Your task to perform on an android device: toggle notification dots Image 0: 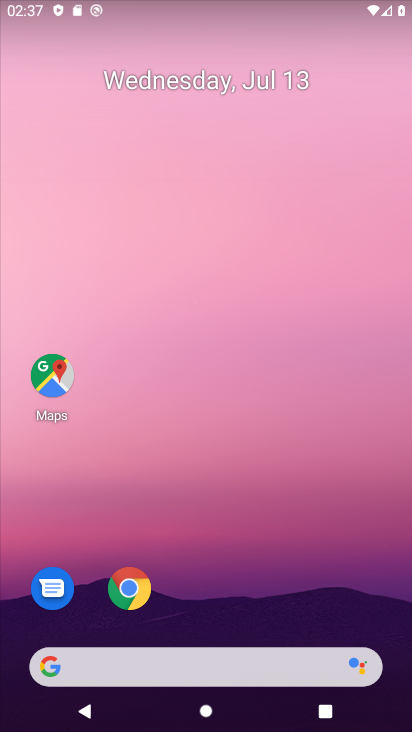
Step 0: click (288, 91)
Your task to perform on an android device: toggle notification dots Image 1: 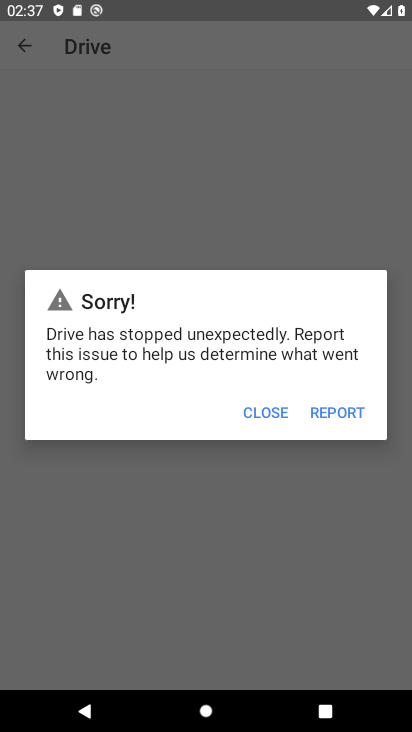
Step 1: press home button
Your task to perform on an android device: toggle notification dots Image 2: 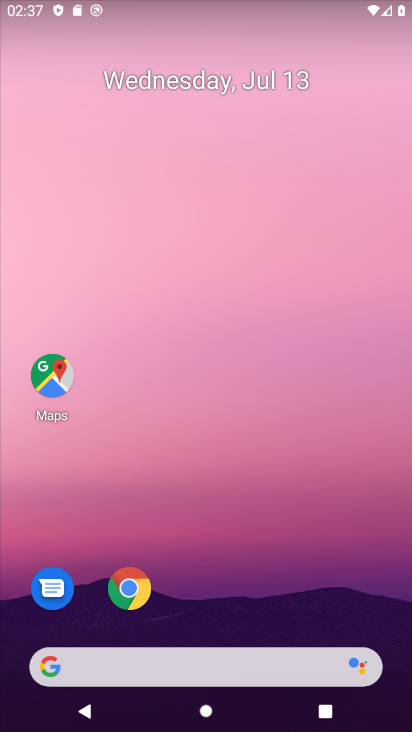
Step 2: drag from (280, 591) to (360, 52)
Your task to perform on an android device: toggle notification dots Image 3: 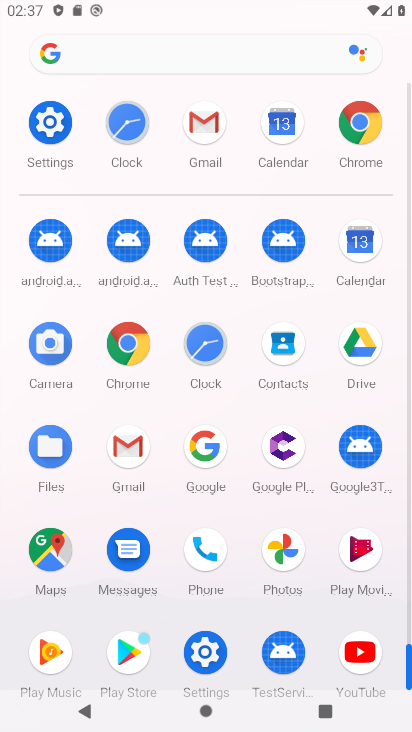
Step 3: click (35, 122)
Your task to perform on an android device: toggle notification dots Image 4: 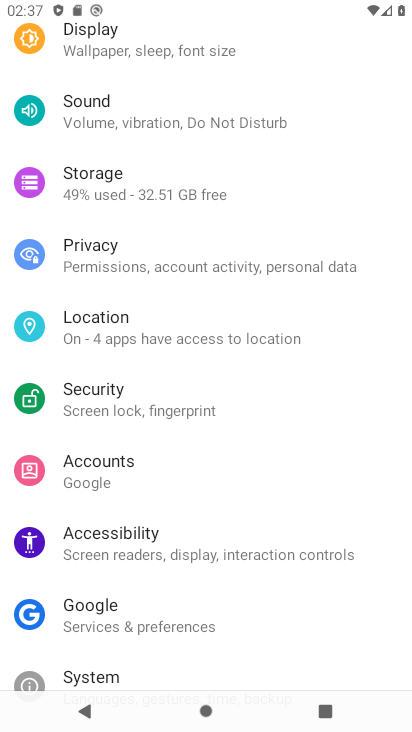
Step 4: drag from (84, 127) to (162, 501)
Your task to perform on an android device: toggle notification dots Image 5: 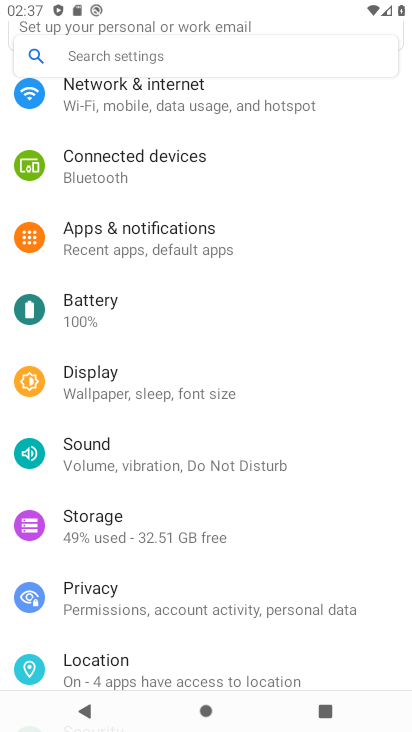
Step 5: click (151, 236)
Your task to perform on an android device: toggle notification dots Image 6: 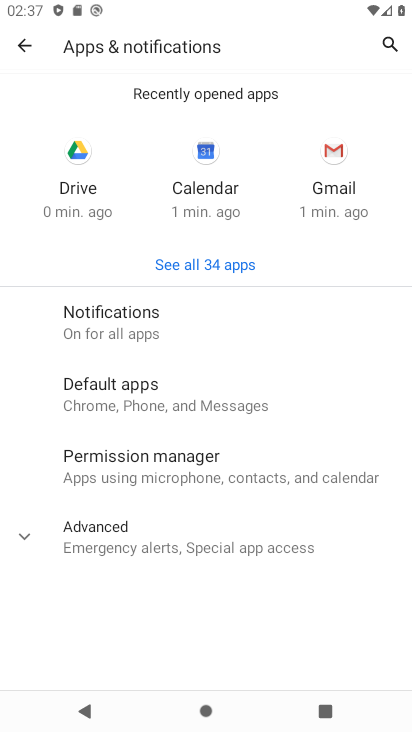
Step 6: click (126, 319)
Your task to perform on an android device: toggle notification dots Image 7: 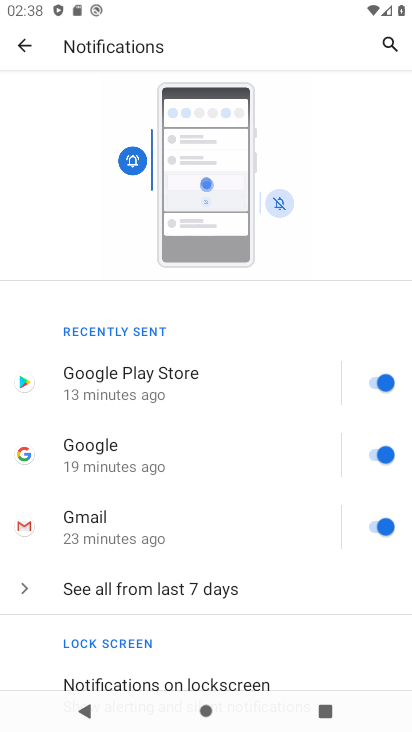
Step 7: drag from (199, 602) to (204, 182)
Your task to perform on an android device: toggle notification dots Image 8: 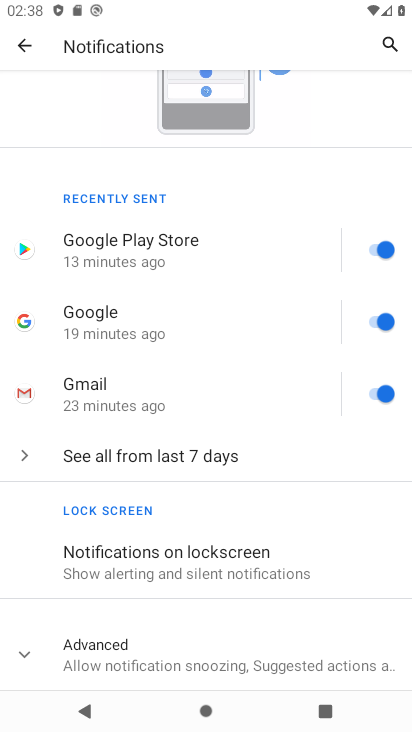
Step 8: click (187, 654)
Your task to perform on an android device: toggle notification dots Image 9: 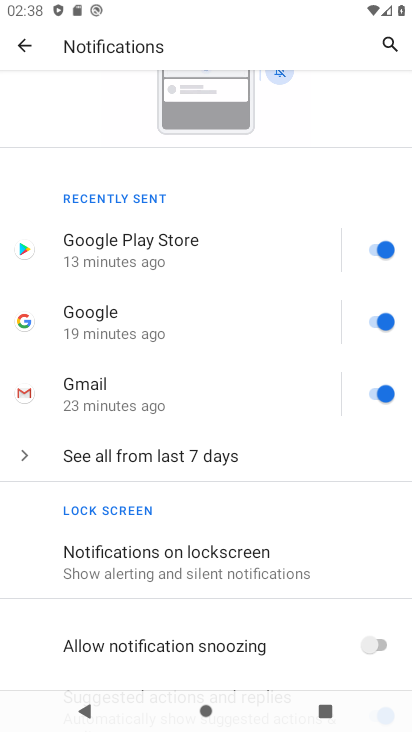
Step 9: drag from (191, 609) to (94, 197)
Your task to perform on an android device: toggle notification dots Image 10: 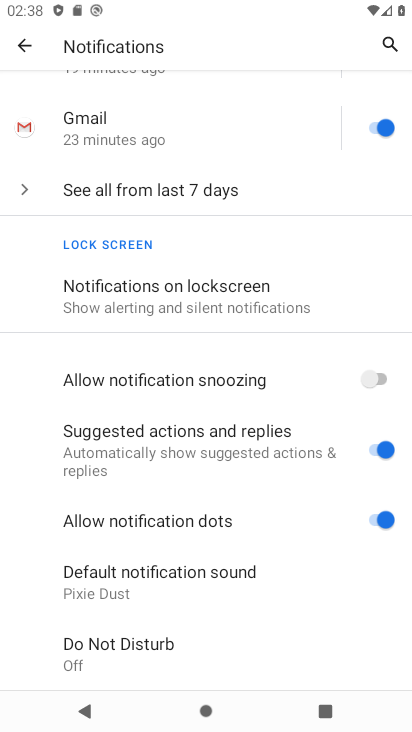
Step 10: click (379, 518)
Your task to perform on an android device: toggle notification dots Image 11: 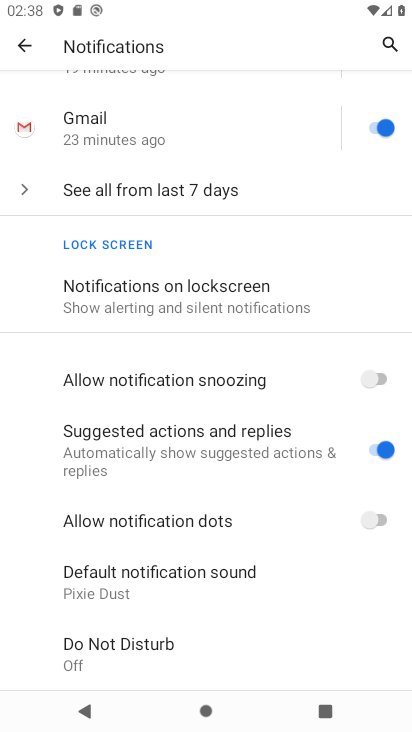
Step 11: task complete